Your task to perform on an android device: turn vacation reply on in the gmail app Image 0: 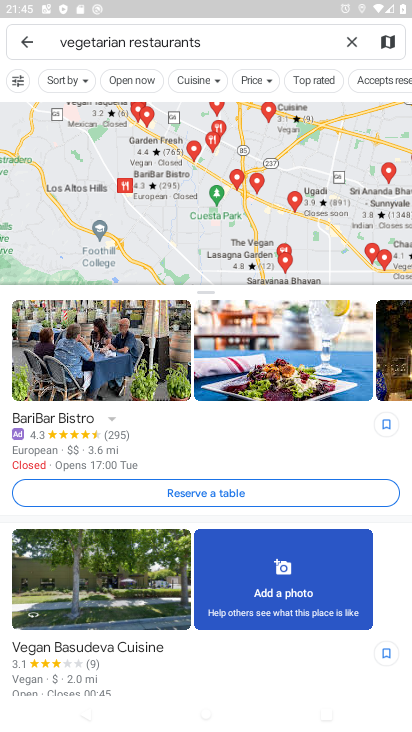
Step 0: press home button
Your task to perform on an android device: turn vacation reply on in the gmail app Image 1: 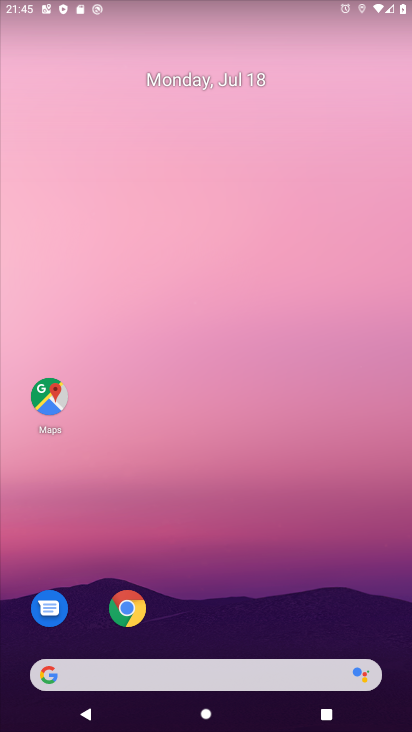
Step 1: drag from (0, 700) to (92, 339)
Your task to perform on an android device: turn vacation reply on in the gmail app Image 2: 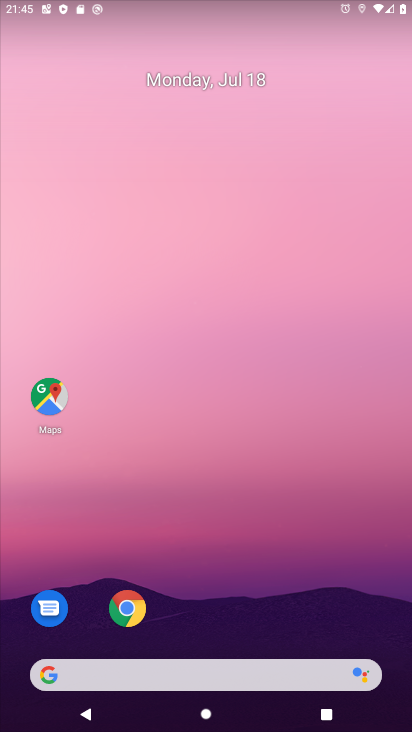
Step 2: drag from (41, 676) to (225, 43)
Your task to perform on an android device: turn vacation reply on in the gmail app Image 3: 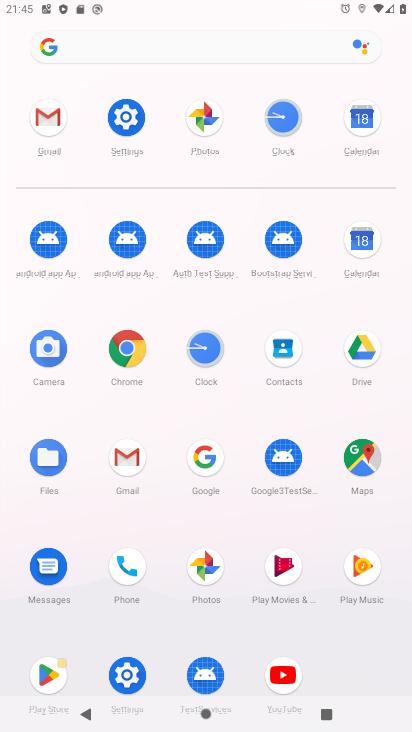
Step 3: click (119, 461)
Your task to perform on an android device: turn vacation reply on in the gmail app Image 4: 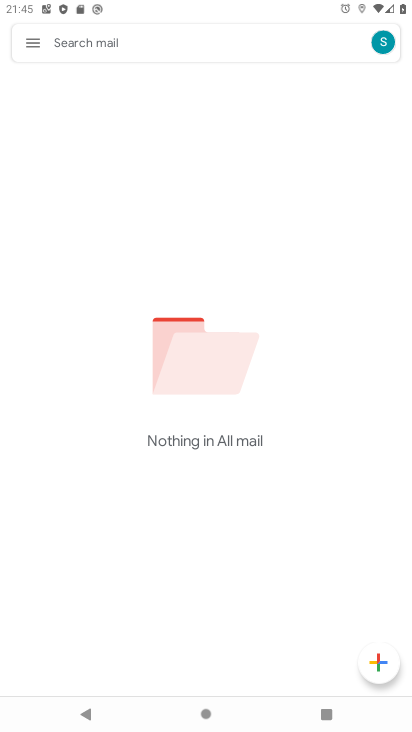
Step 4: click (31, 34)
Your task to perform on an android device: turn vacation reply on in the gmail app Image 5: 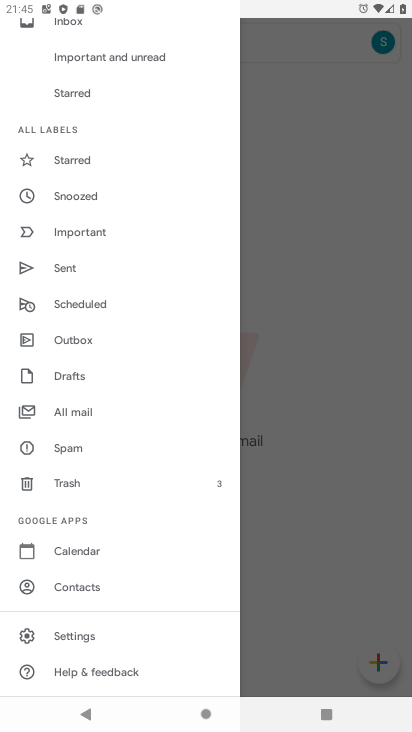
Step 5: click (64, 644)
Your task to perform on an android device: turn vacation reply on in the gmail app Image 6: 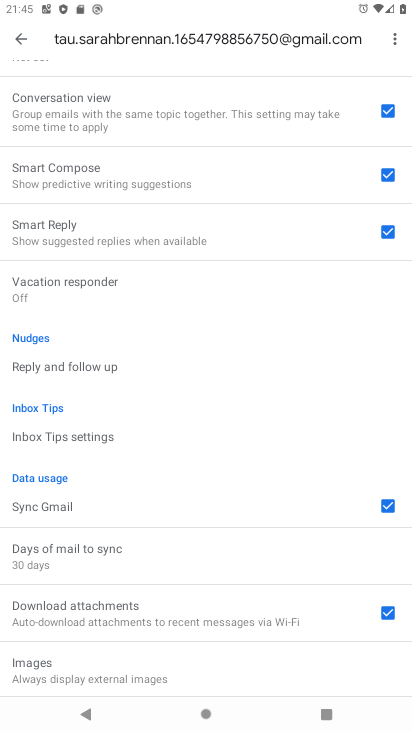
Step 6: task complete